Your task to perform on an android device: View the shopping cart on walmart. Search for logitech g910 on walmart, select the first entry, add it to the cart, then select checkout. Image 0: 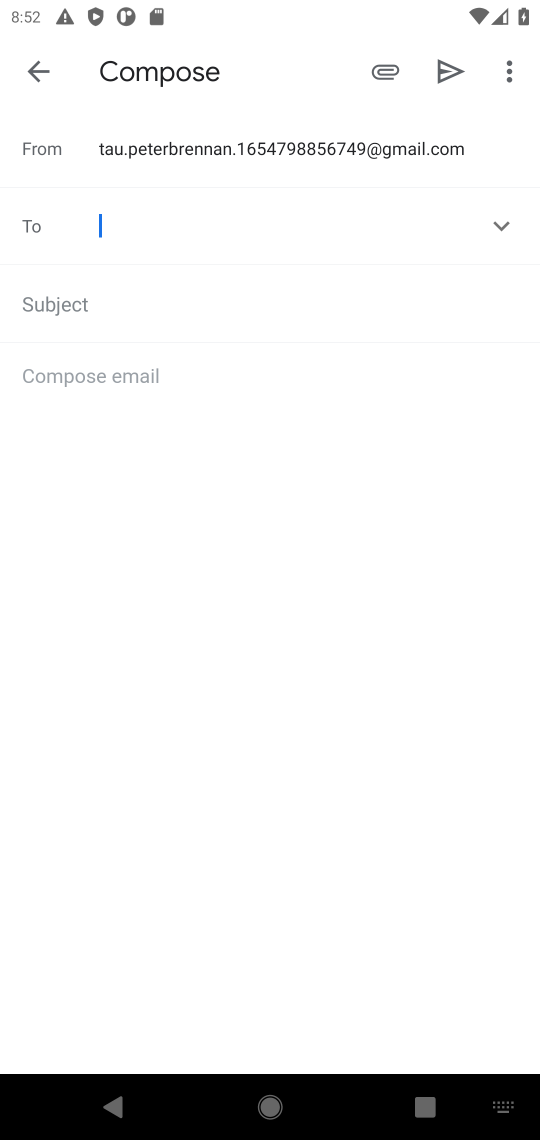
Step 0: press home button
Your task to perform on an android device: View the shopping cart on walmart. Search for logitech g910 on walmart, select the first entry, add it to the cart, then select checkout. Image 1: 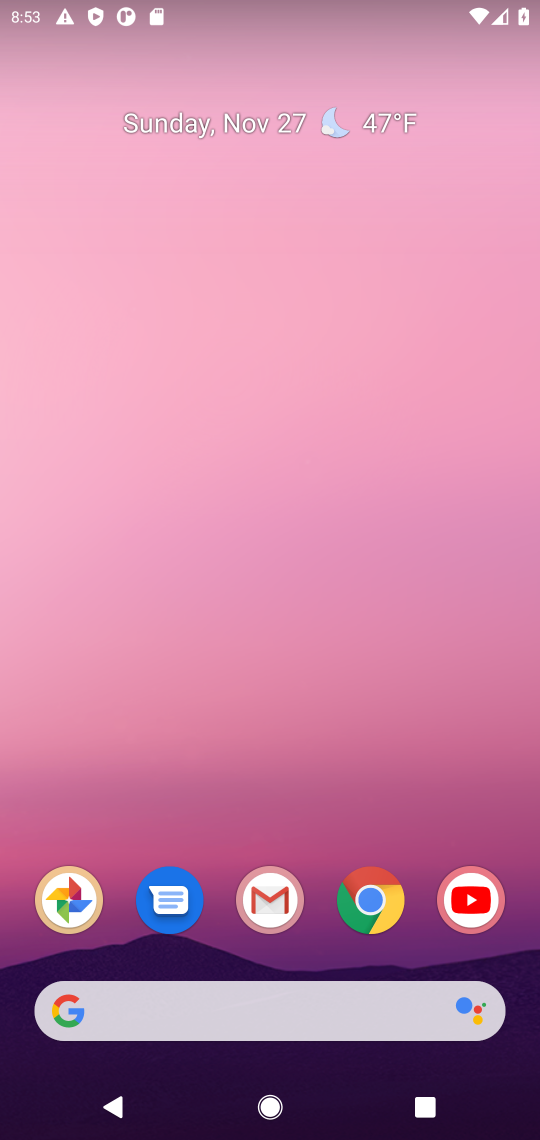
Step 1: click (363, 903)
Your task to perform on an android device: View the shopping cart on walmart. Search for logitech g910 on walmart, select the first entry, add it to the cart, then select checkout. Image 2: 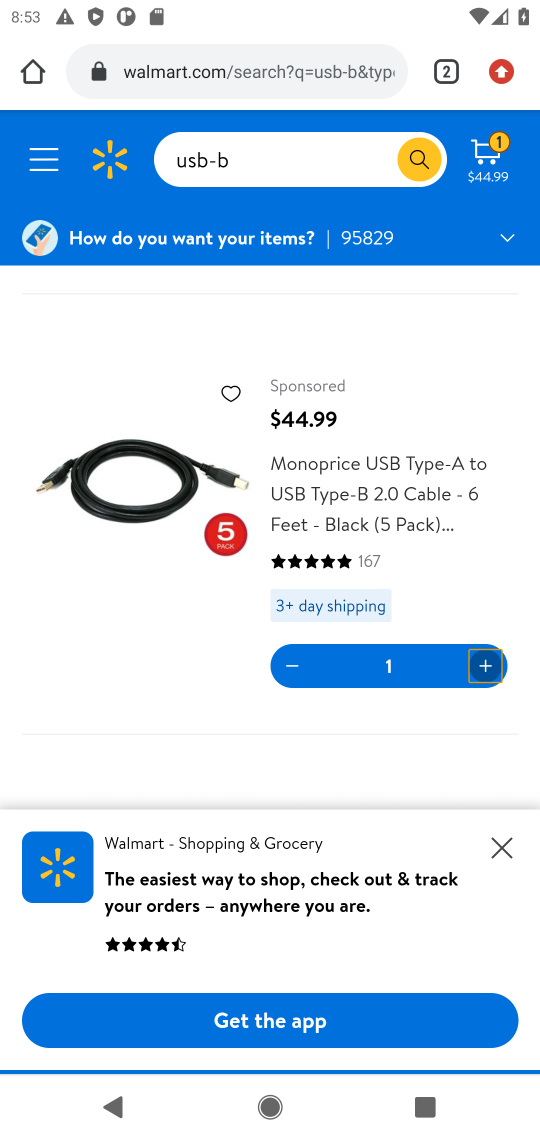
Step 2: click (499, 164)
Your task to perform on an android device: View the shopping cart on walmart. Search for logitech g910 on walmart, select the first entry, add it to the cart, then select checkout. Image 3: 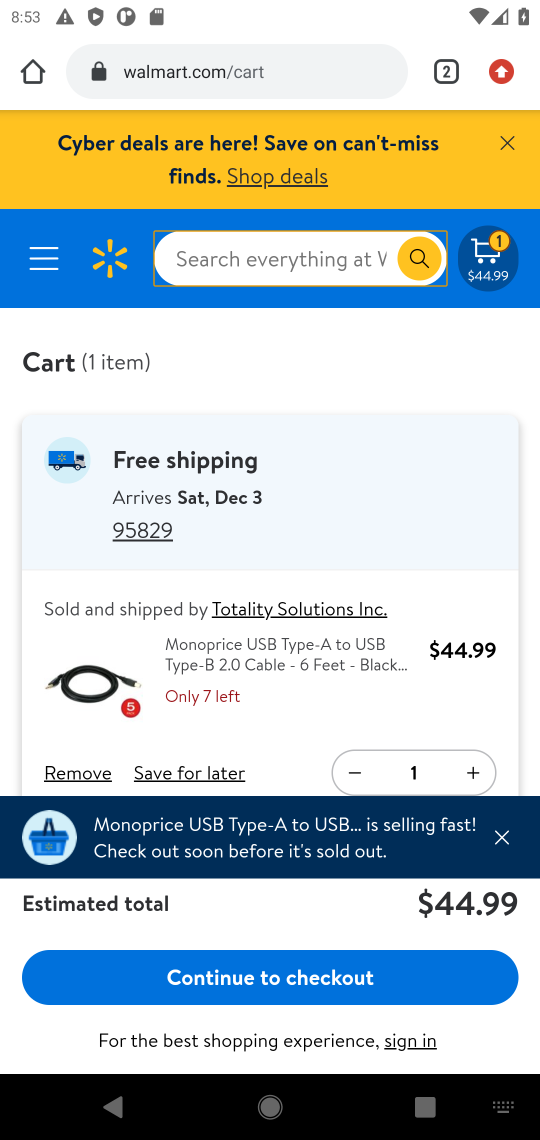
Step 3: click (58, 773)
Your task to perform on an android device: View the shopping cart on walmart. Search for logitech g910 on walmart, select the first entry, add it to the cart, then select checkout. Image 4: 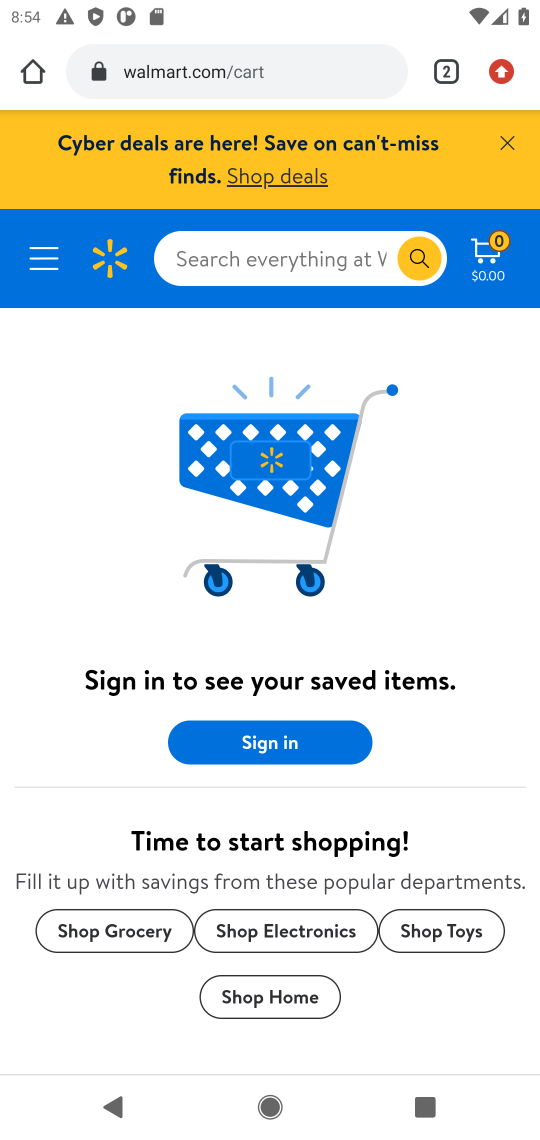
Step 4: click (247, 261)
Your task to perform on an android device: View the shopping cart on walmart. Search for logitech g910 on walmart, select the first entry, add it to the cart, then select checkout. Image 5: 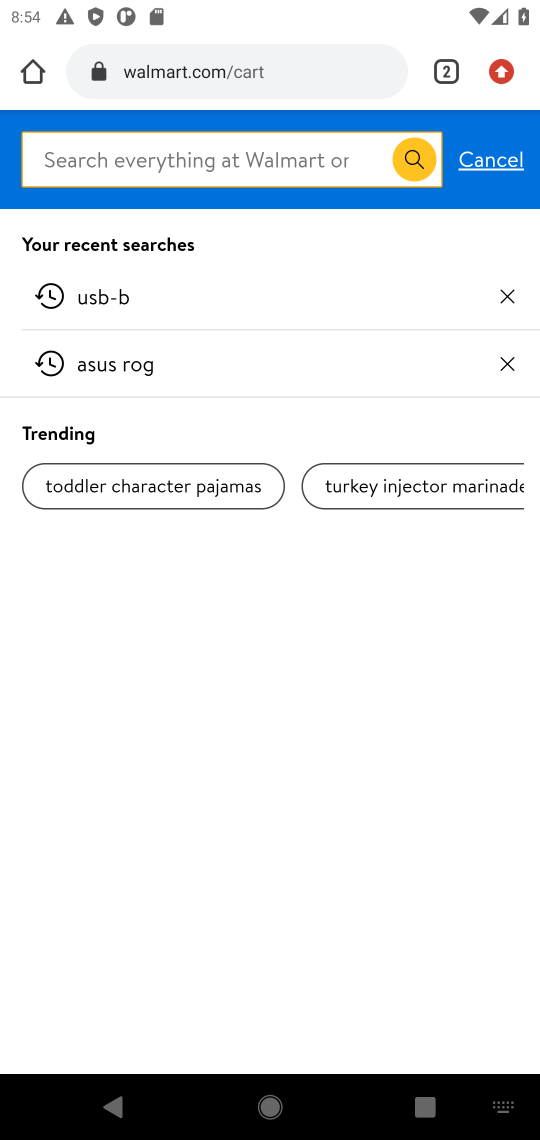
Step 5: type "logitech g910 "
Your task to perform on an android device: View the shopping cart on walmart. Search for logitech g910 on walmart, select the first entry, add it to the cart, then select checkout. Image 6: 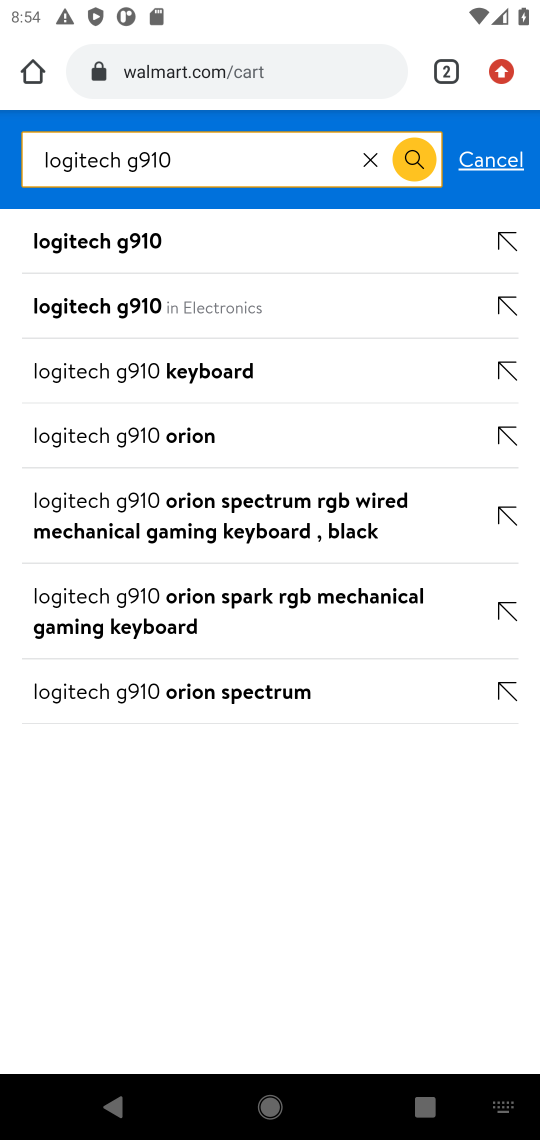
Step 6: click (114, 249)
Your task to perform on an android device: View the shopping cart on walmart. Search for logitech g910 on walmart, select the first entry, add it to the cart, then select checkout. Image 7: 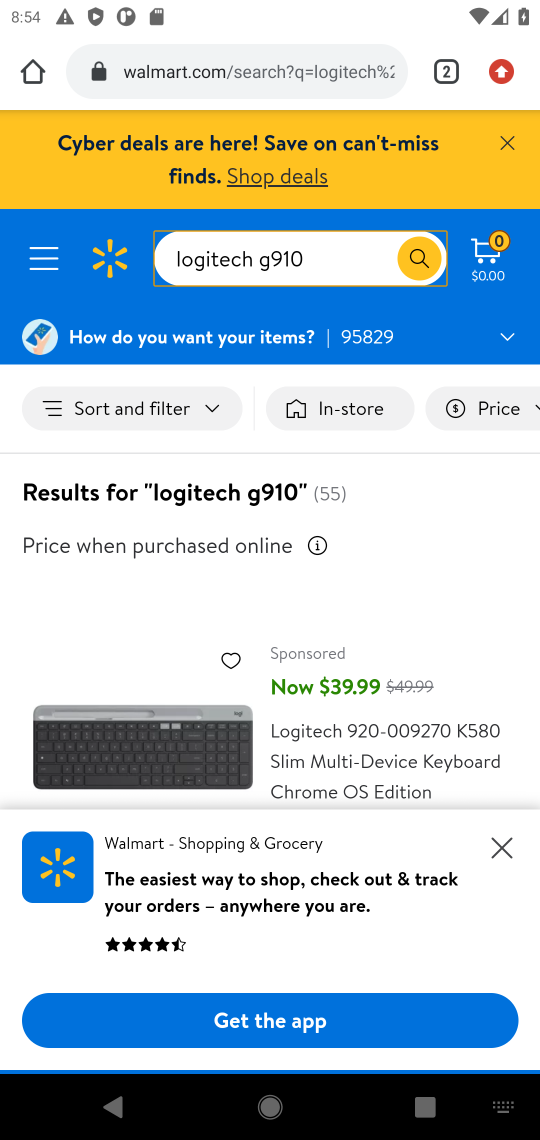
Step 7: task complete